Your task to perform on an android device: turn on improve location accuracy Image 0: 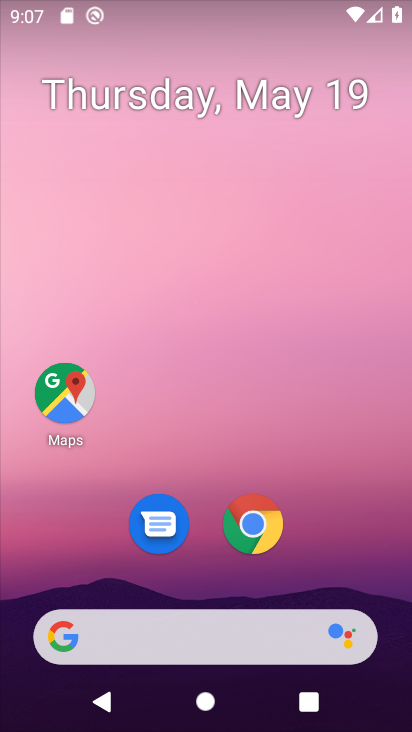
Step 0: drag from (300, 435) to (291, 36)
Your task to perform on an android device: turn on improve location accuracy Image 1: 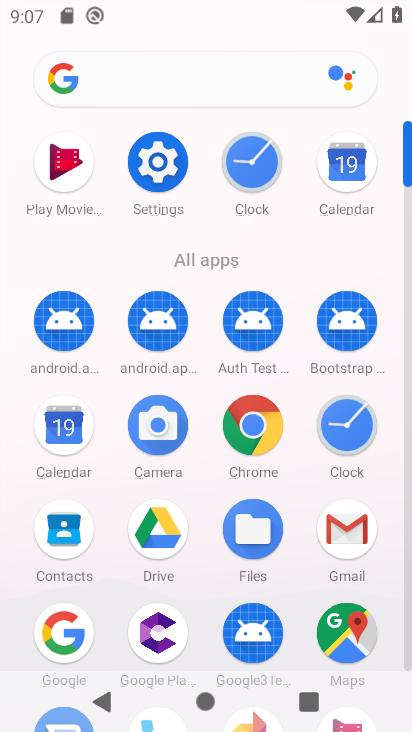
Step 1: click (170, 168)
Your task to perform on an android device: turn on improve location accuracy Image 2: 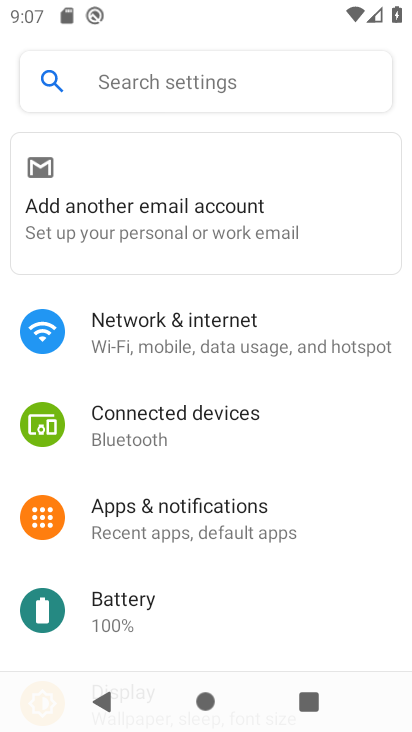
Step 2: drag from (226, 581) to (264, 2)
Your task to perform on an android device: turn on improve location accuracy Image 3: 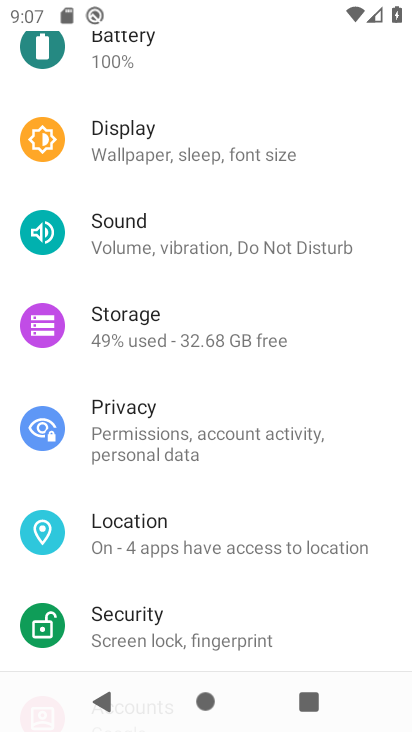
Step 3: click (230, 540)
Your task to perform on an android device: turn on improve location accuracy Image 4: 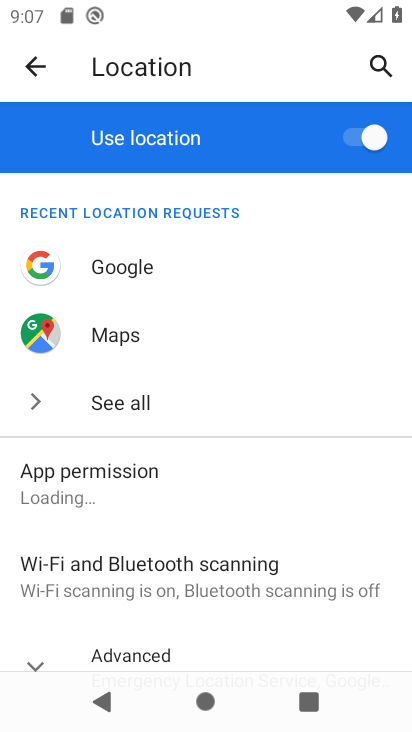
Step 4: drag from (230, 534) to (245, 240)
Your task to perform on an android device: turn on improve location accuracy Image 5: 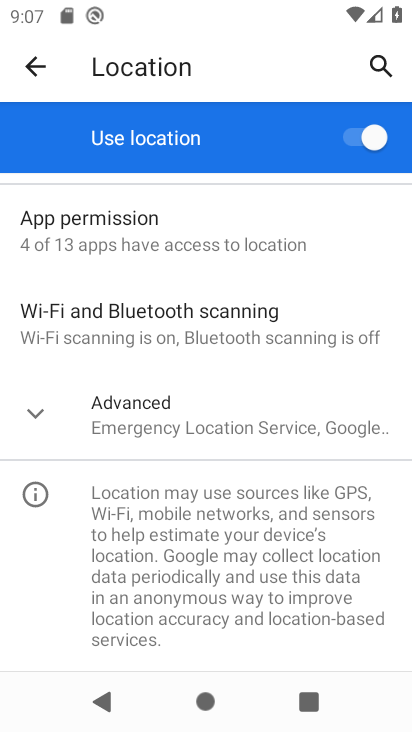
Step 5: click (36, 408)
Your task to perform on an android device: turn on improve location accuracy Image 6: 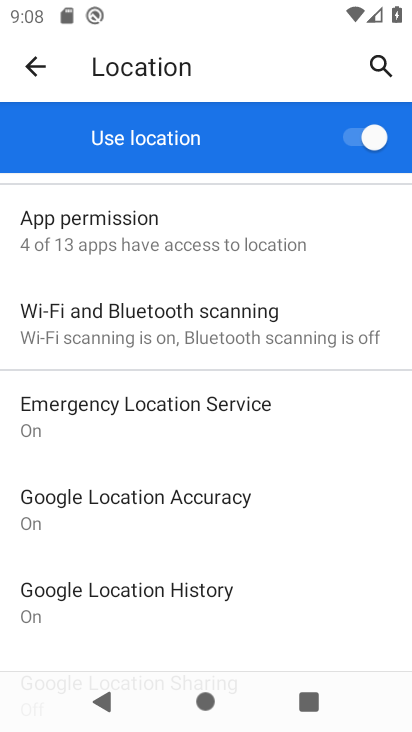
Step 6: click (197, 516)
Your task to perform on an android device: turn on improve location accuracy Image 7: 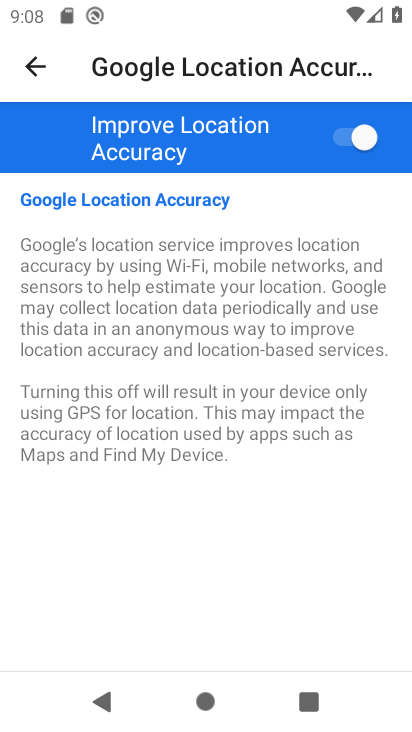
Step 7: task complete